Your task to perform on an android device: Open the calendar app, open the side menu, and click the "Day" option Image 0: 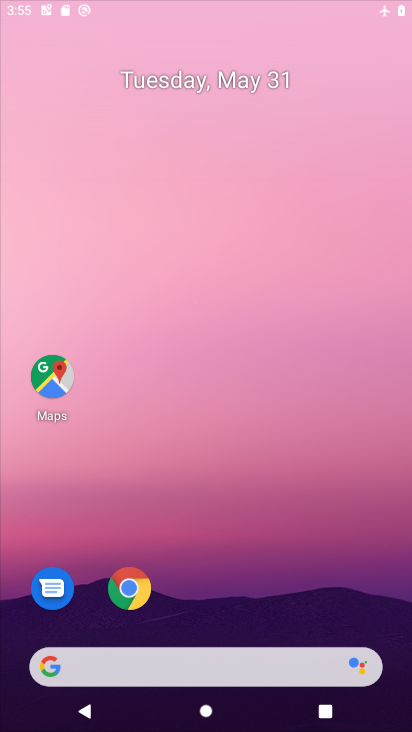
Step 0: drag from (221, 612) to (210, 203)
Your task to perform on an android device: Open the calendar app, open the side menu, and click the "Day" option Image 1: 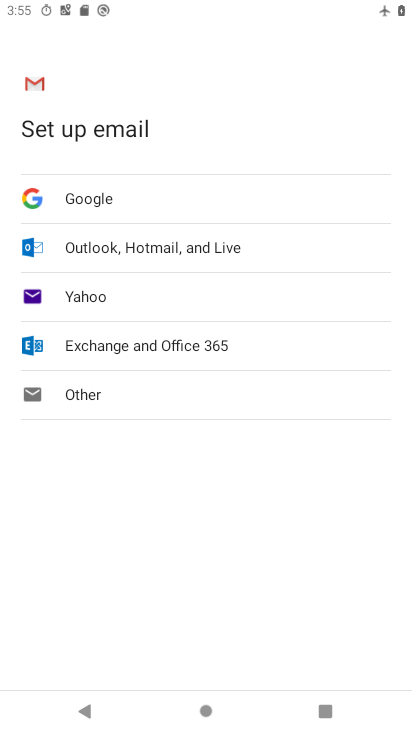
Step 1: press home button
Your task to perform on an android device: Open the calendar app, open the side menu, and click the "Day" option Image 2: 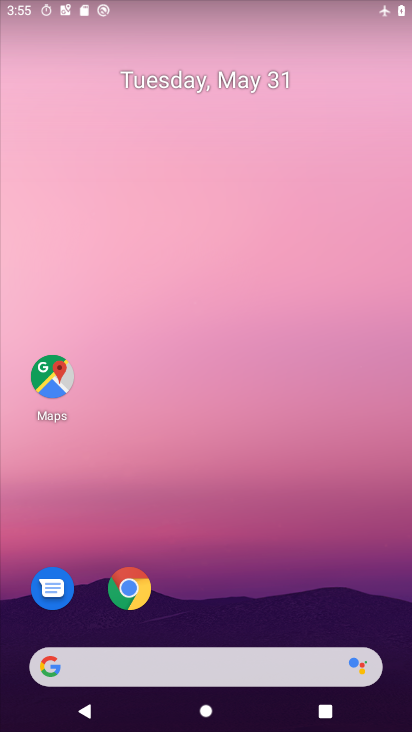
Step 2: drag from (248, 623) to (335, 106)
Your task to perform on an android device: Open the calendar app, open the side menu, and click the "Day" option Image 3: 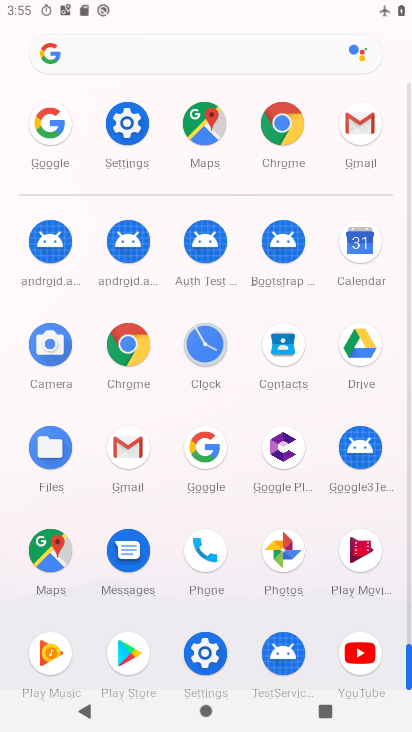
Step 3: click (375, 249)
Your task to perform on an android device: Open the calendar app, open the side menu, and click the "Day" option Image 4: 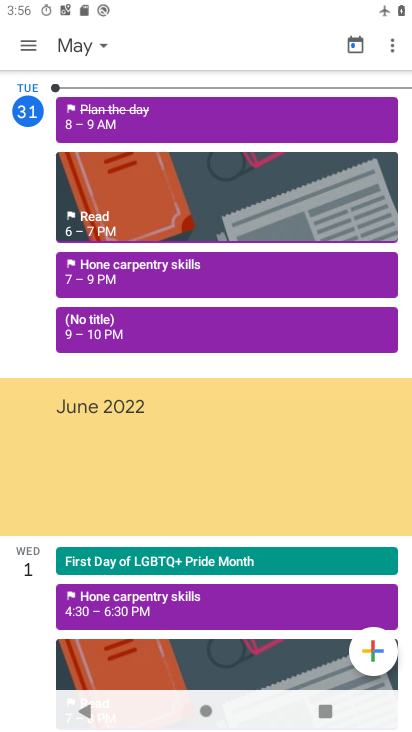
Step 4: click (16, 48)
Your task to perform on an android device: Open the calendar app, open the side menu, and click the "Day" option Image 5: 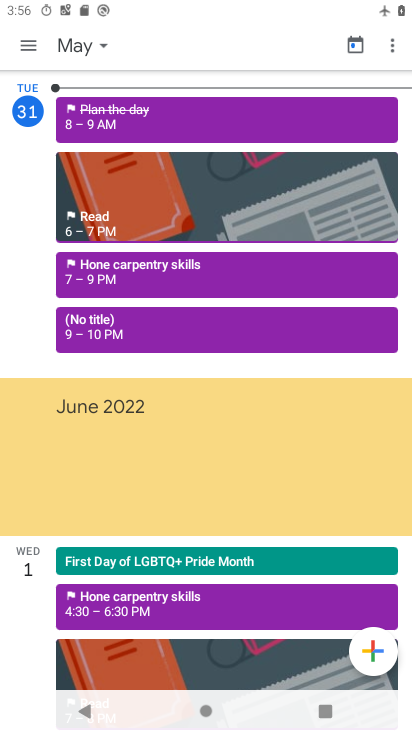
Step 5: click (29, 47)
Your task to perform on an android device: Open the calendar app, open the side menu, and click the "Day" option Image 6: 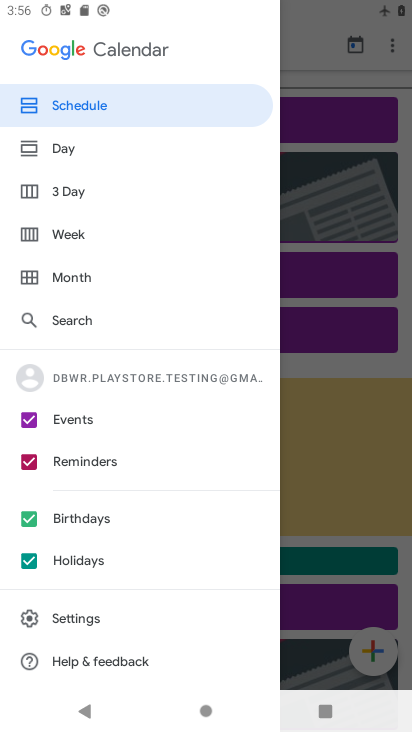
Step 6: click (75, 152)
Your task to perform on an android device: Open the calendar app, open the side menu, and click the "Day" option Image 7: 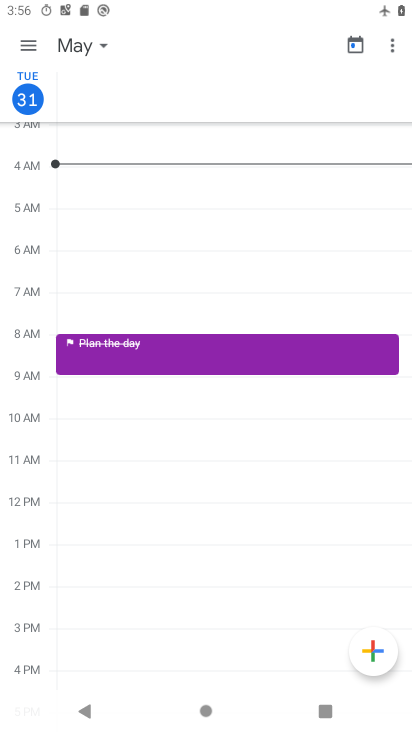
Step 7: task complete